Your task to perform on an android device: change the clock display to digital Image 0: 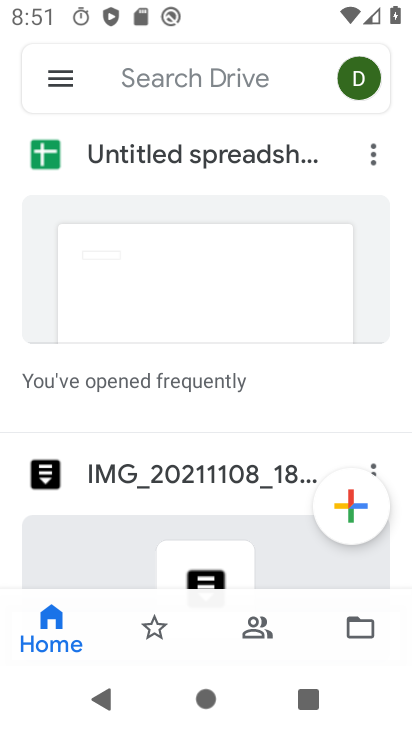
Step 0: press home button
Your task to perform on an android device: change the clock display to digital Image 1: 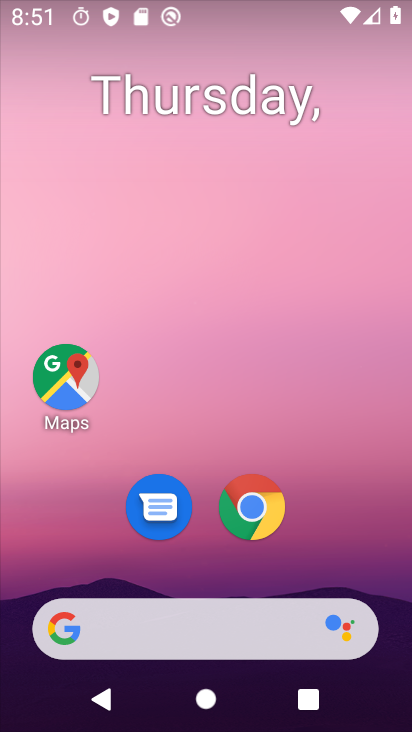
Step 1: drag from (195, 558) to (264, 0)
Your task to perform on an android device: change the clock display to digital Image 2: 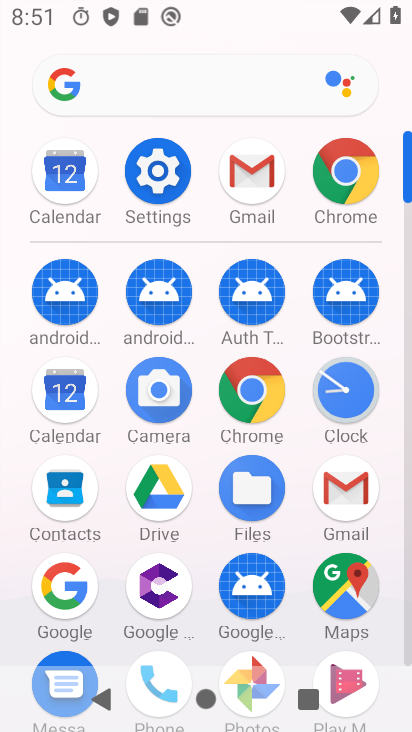
Step 2: click (347, 407)
Your task to perform on an android device: change the clock display to digital Image 3: 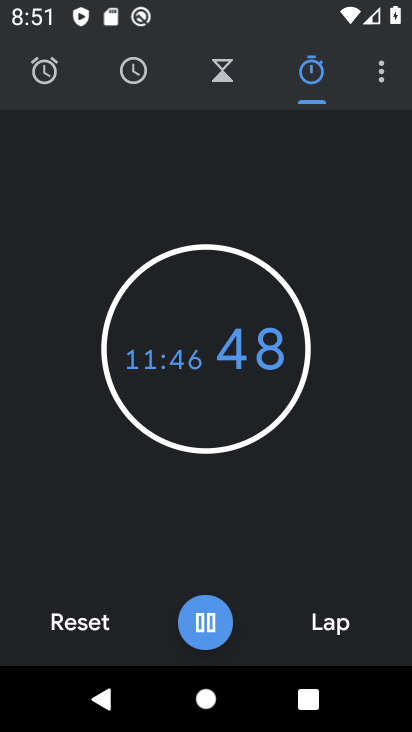
Step 3: click (71, 625)
Your task to perform on an android device: change the clock display to digital Image 4: 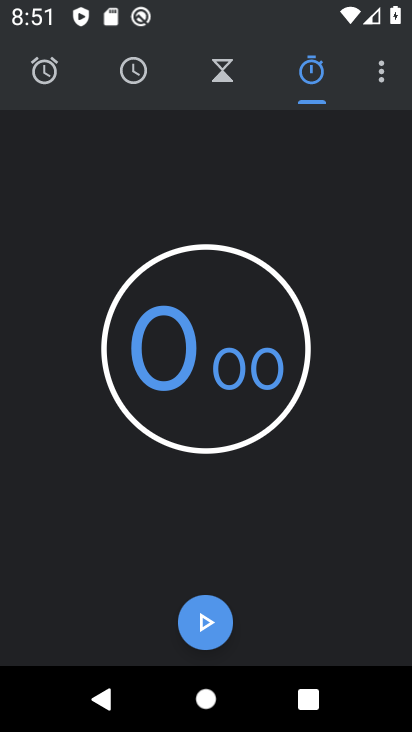
Step 4: click (382, 64)
Your task to perform on an android device: change the clock display to digital Image 5: 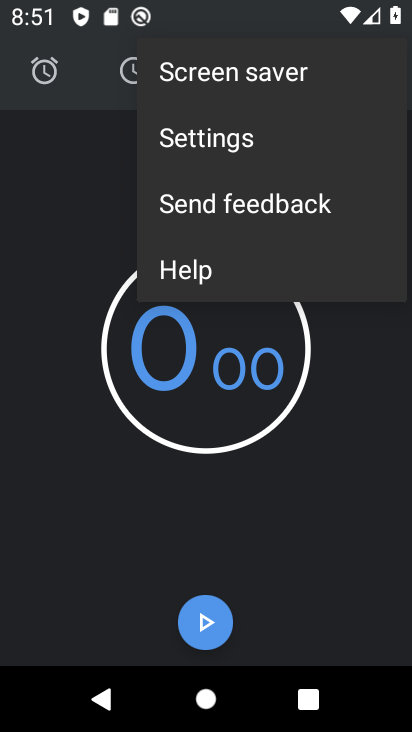
Step 5: click (214, 145)
Your task to perform on an android device: change the clock display to digital Image 6: 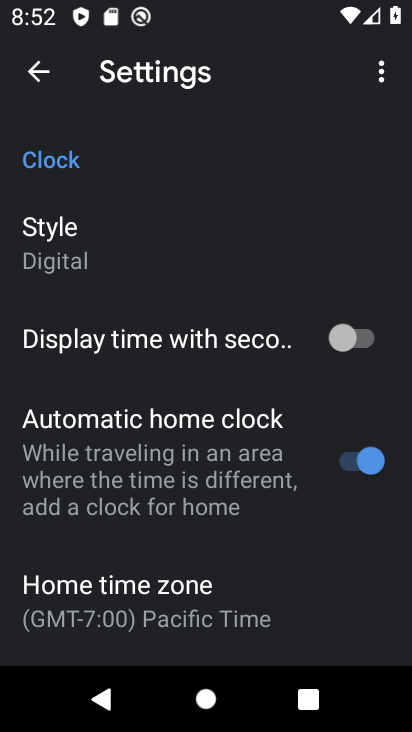
Step 6: click (81, 250)
Your task to perform on an android device: change the clock display to digital Image 7: 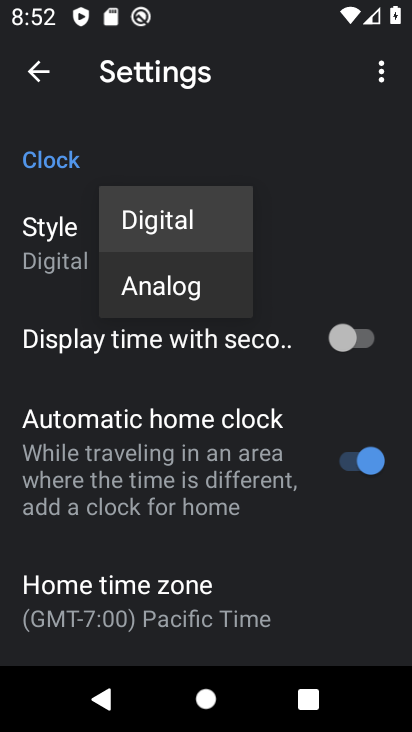
Step 7: task complete